Your task to perform on an android device: What's the weather going to be tomorrow? Image 0: 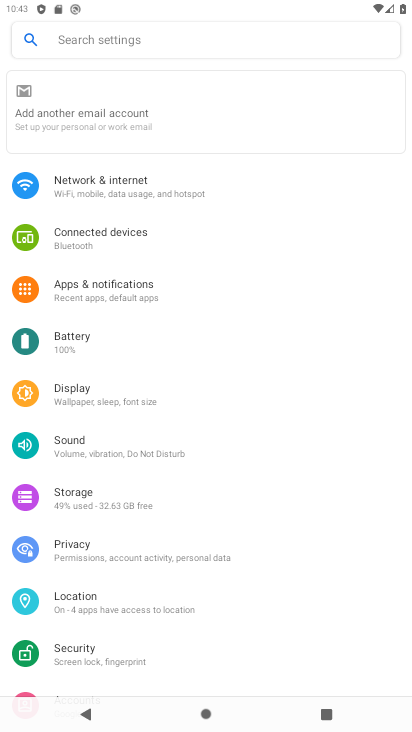
Step 0: press home button
Your task to perform on an android device: What's the weather going to be tomorrow? Image 1: 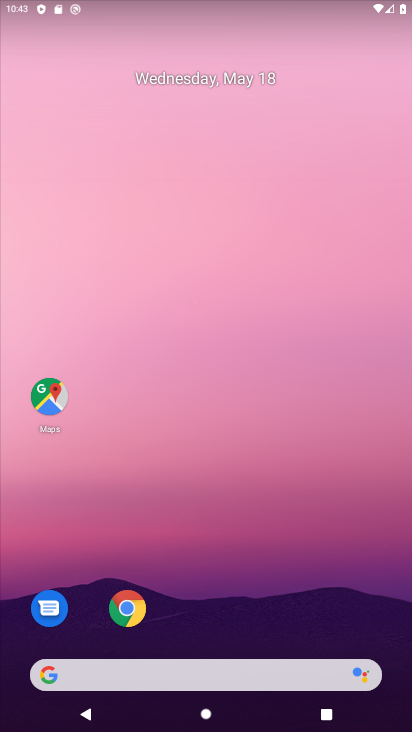
Step 1: click (123, 615)
Your task to perform on an android device: What's the weather going to be tomorrow? Image 2: 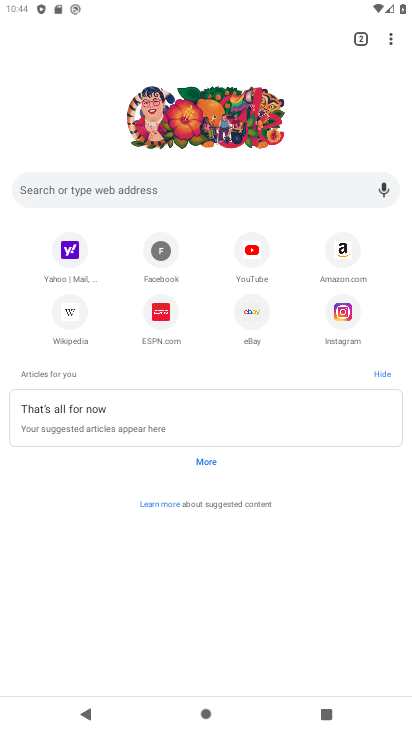
Step 2: click (177, 196)
Your task to perform on an android device: What's the weather going to be tomorrow? Image 3: 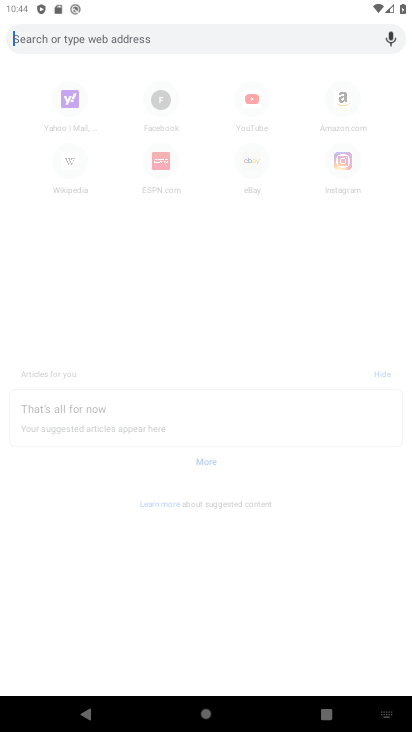
Step 3: type "What's the weather going to be tomorrow?"
Your task to perform on an android device: What's the weather going to be tomorrow? Image 4: 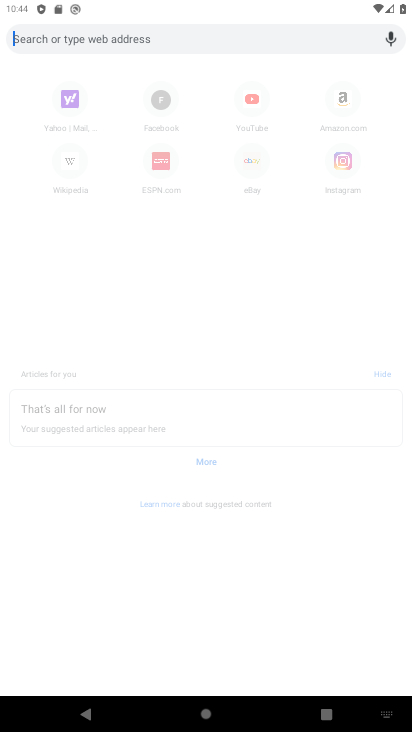
Step 4: click (32, 73)
Your task to perform on an android device: What's the weather going to be tomorrow? Image 5: 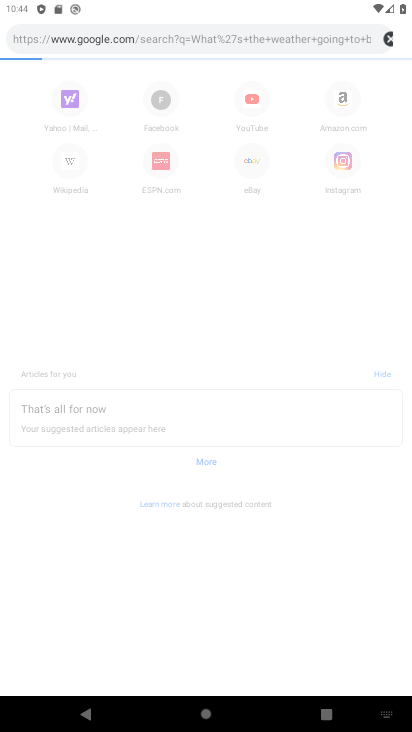
Step 5: click (32, 73)
Your task to perform on an android device: What's the weather going to be tomorrow? Image 6: 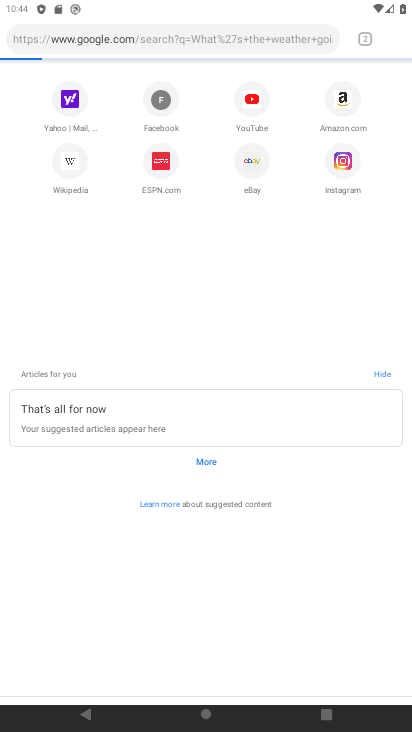
Step 6: click (32, 73)
Your task to perform on an android device: What's the weather going to be tomorrow? Image 7: 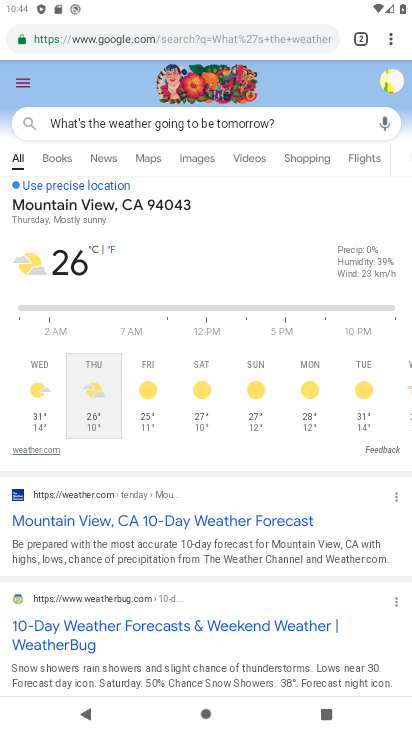
Step 7: task complete